Your task to perform on an android device: Search for sony triple a on target.com, select the first entry, and add it to the cart. Image 0: 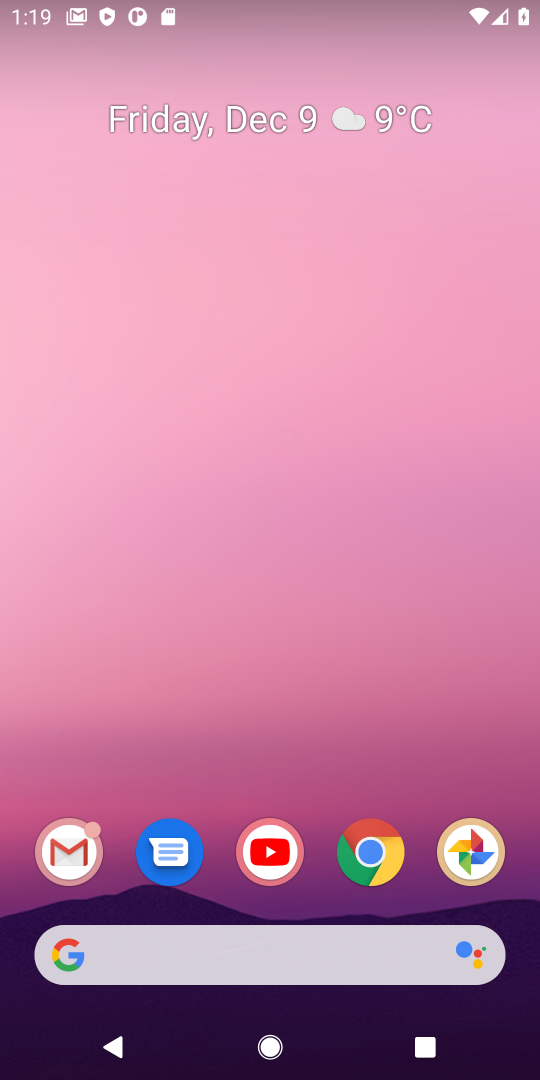
Step 0: click (381, 859)
Your task to perform on an android device: Search for sony triple a on target.com, select the first entry, and add it to the cart. Image 1: 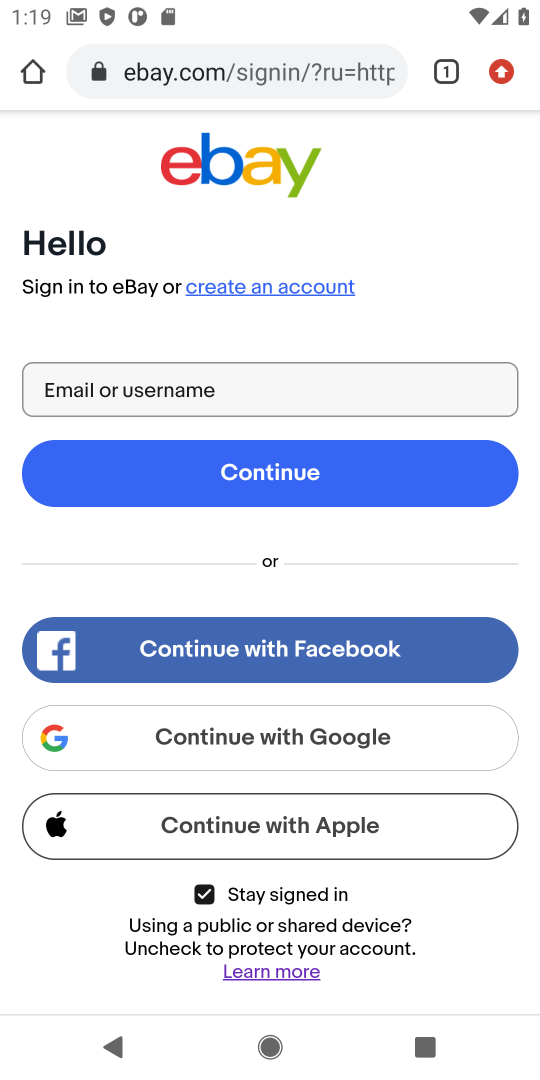
Step 1: click (205, 60)
Your task to perform on an android device: Search for sony triple a on target.com, select the first entry, and add it to the cart. Image 2: 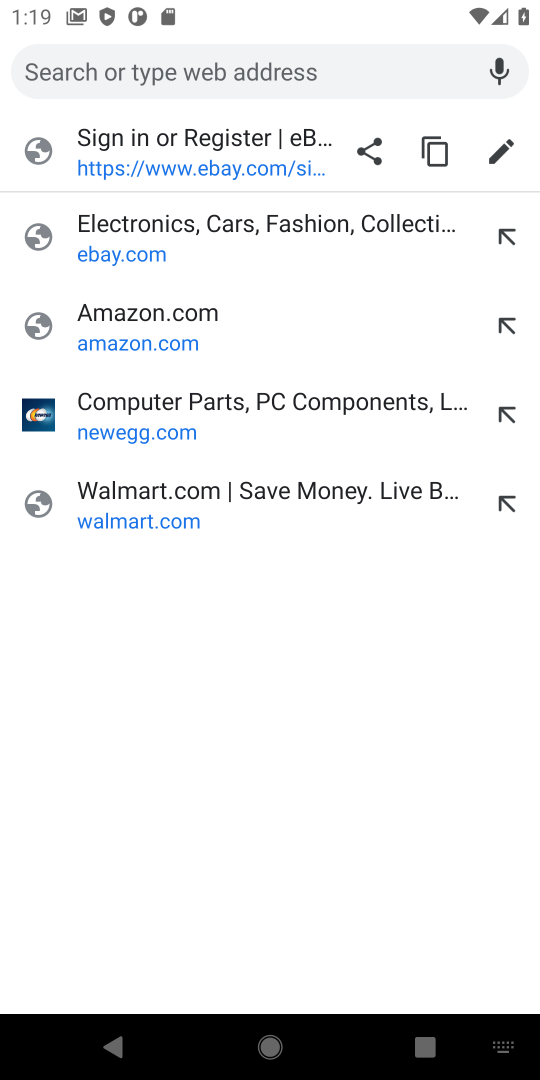
Step 2: type "target.com"
Your task to perform on an android device: Search for sony triple a on target.com, select the first entry, and add it to the cart. Image 3: 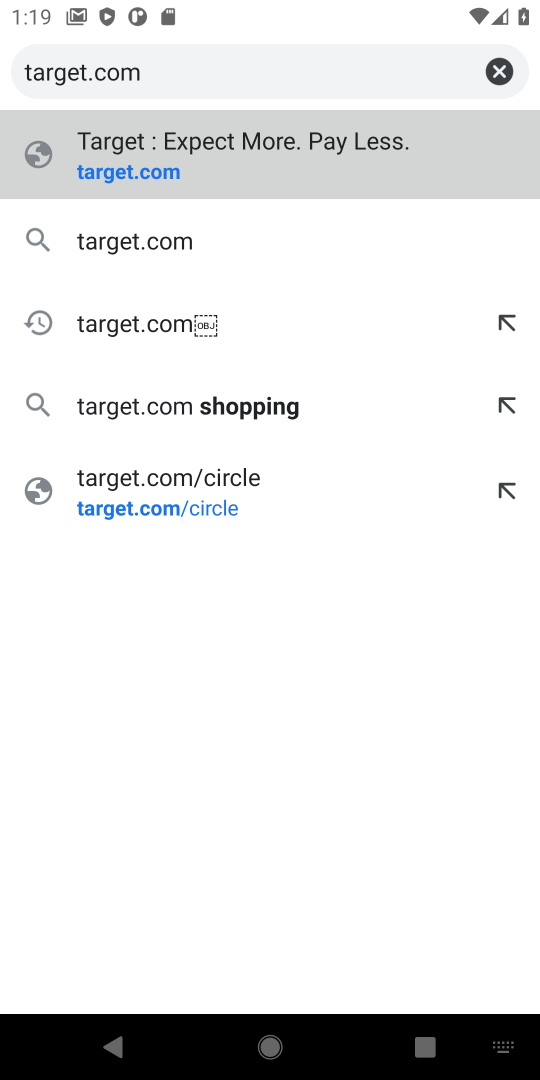
Step 3: press enter
Your task to perform on an android device: Search for sony triple a on target.com, select the first entry, and add it to the cart. Image 4: 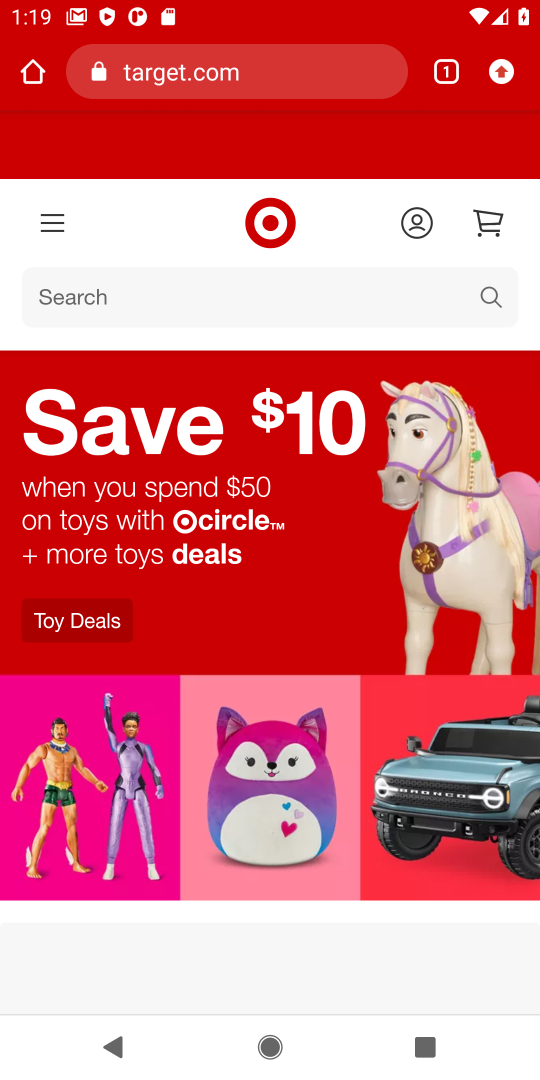
Step 4: click (118, 318)
Your task to perform on an android device: Search for sony triple a on target.com, select the first entry, and add it to the cart. Image 5: 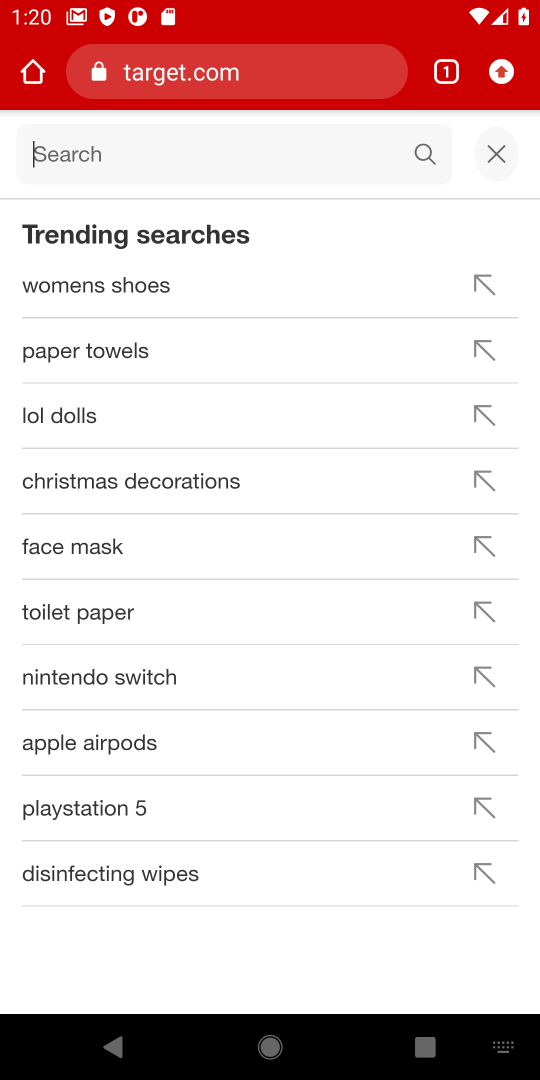
Step 5: type "sony triple a"
Your task to perform on an android device: Search for sony triple a on target.com, select the first entry, and add it to the cart. Image 6: 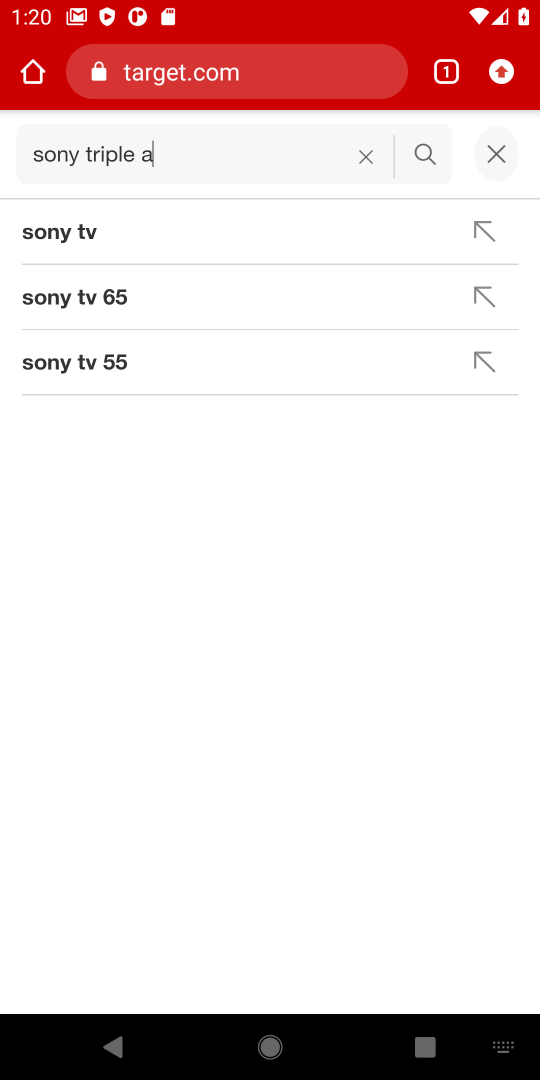
Step 6: click (429, 162)
Your task to perform on an android device: Search for sony triple a on target.com, select the first entry, and add it to the cart. Image 7: 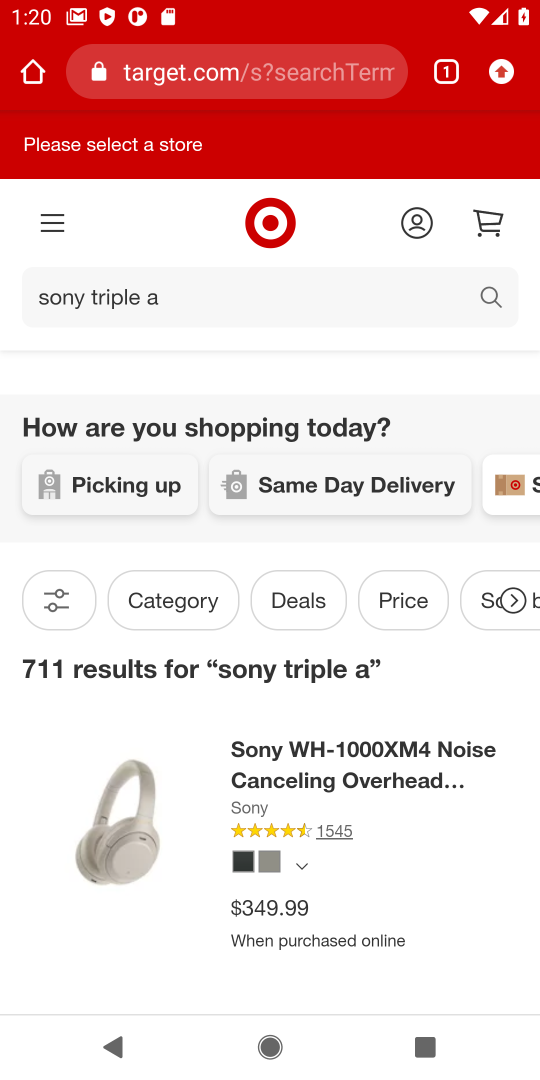
Step 7: task complete